Your task to perform on an android device: manage bookmarks in the chrome app Image 0: 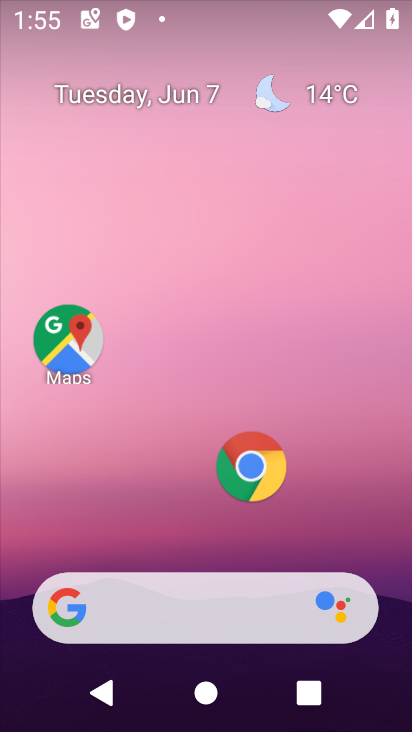
Step 0: click (273, 473)
Your task to perform on an android device: manage bookmarks in the chrome app Image 1: 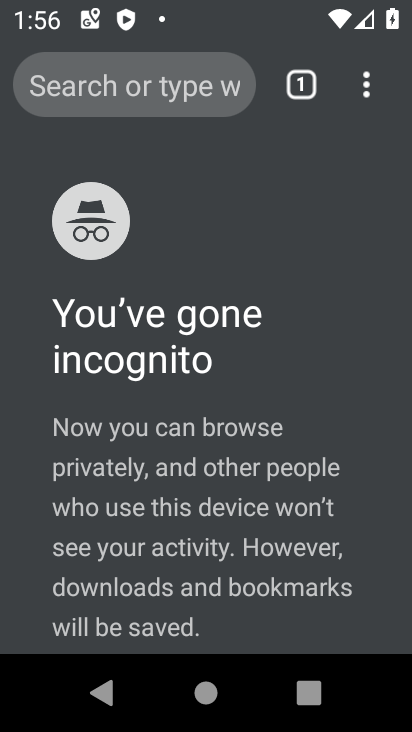
Step 1: click (369, 93)
Your task to perform on an android device: manage bookmarks in the chrome app Image 2: 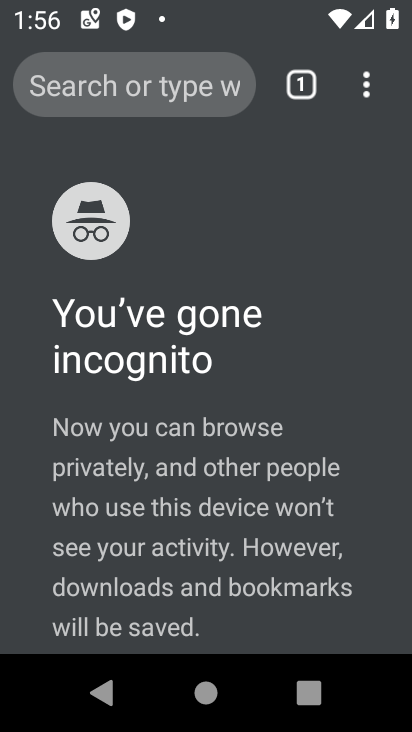
Step 2: click (367, 87)
Your task to perform on an android device: manage bookmarks in the chrome app Image 3: 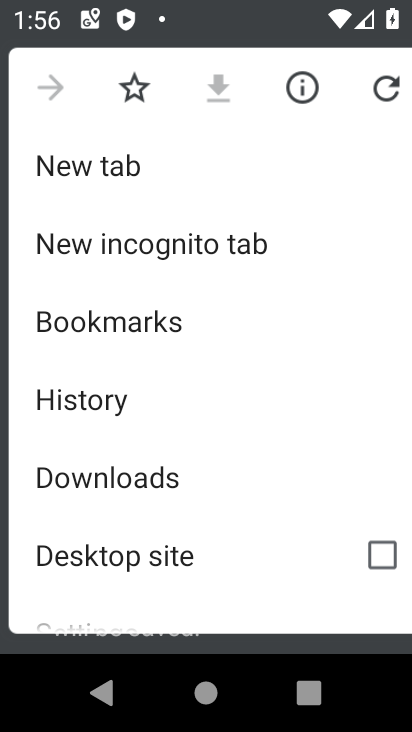
Step 3: click (96, 336)
Your task to perform on an android device: manage bookmarks in the chrome app Image 4: 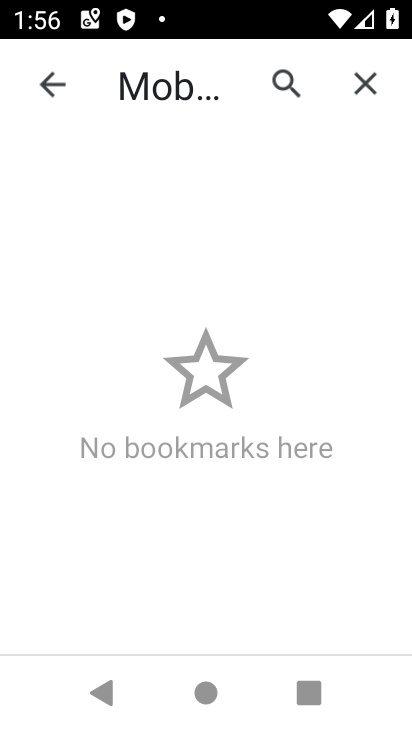
Step 4: task complete